Your task to perform on an android device: Search for seafood restaurants on Google Maps Image 0: 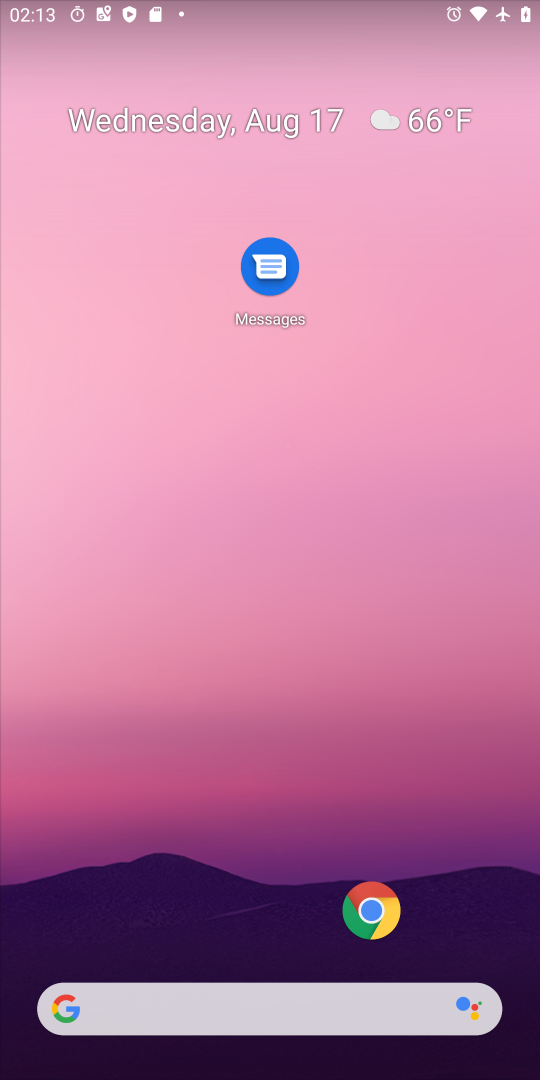
Step 0: drag from (229, 981) to (234, 247)
Your task to perform on an android device: Search for seafood restaurants on Google Maps Image 1: 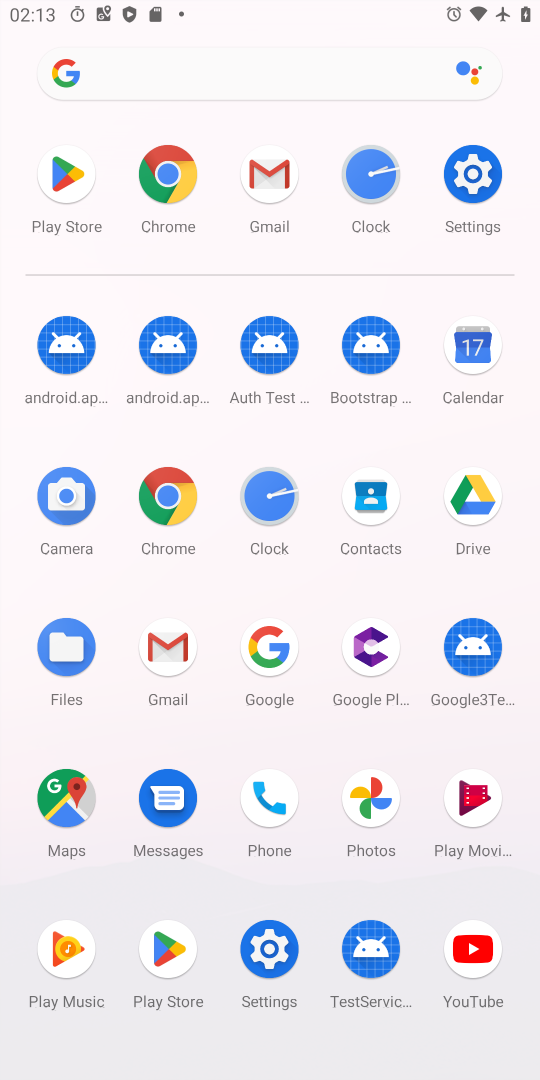
Step 1: click (53, 809)
Your task to perform on an android device: Search for seafood restaurants on Google Maps Image 2: 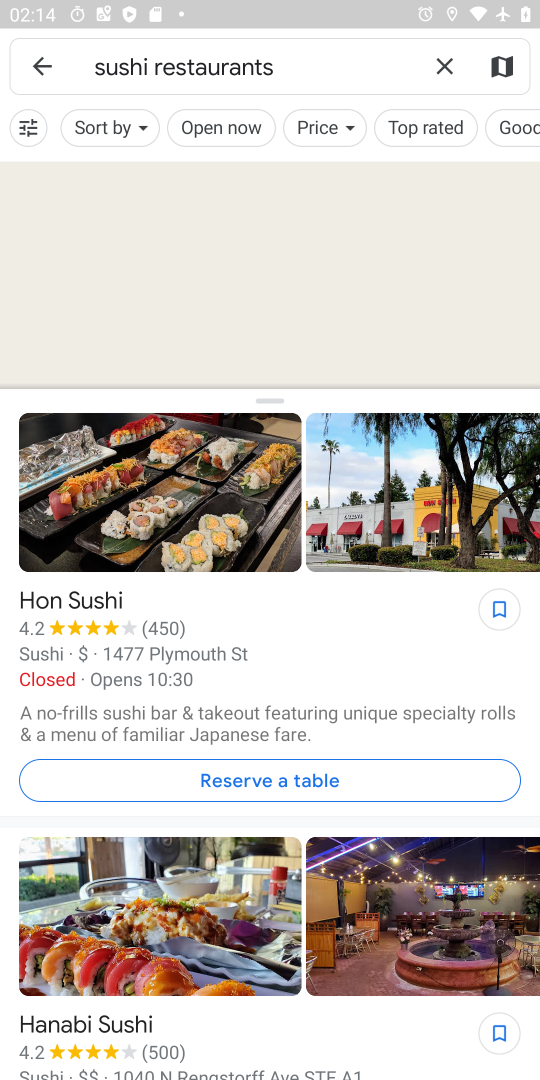
Step 2: click (442, 63)
Your task to perform on an android device: Search for seafood restaurants on Google Maps Image 3: 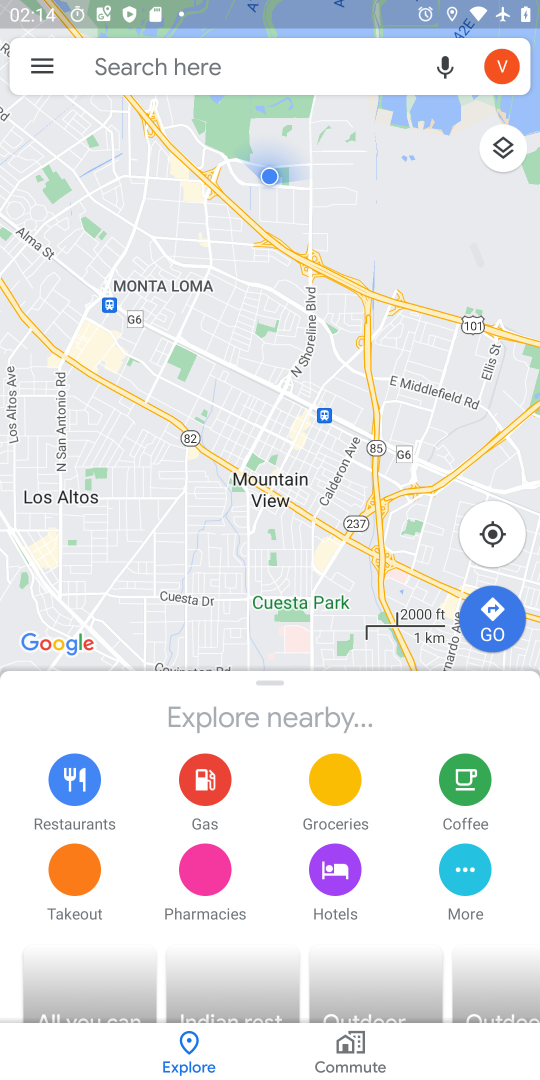
Step 3: click (347, 63)
Your task to perform on an android device: Search for seafood restaurants on Google Maps Image 4: 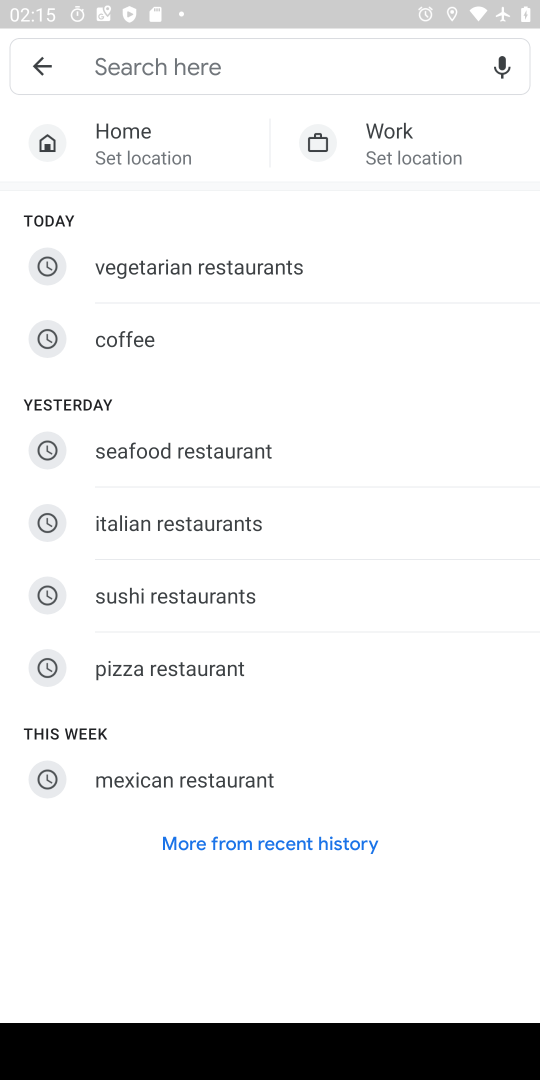
Step 4: type "seafood restaurants"
Your task to perform on an android device: Search for seafood restaurants on Google Maps Image 5: 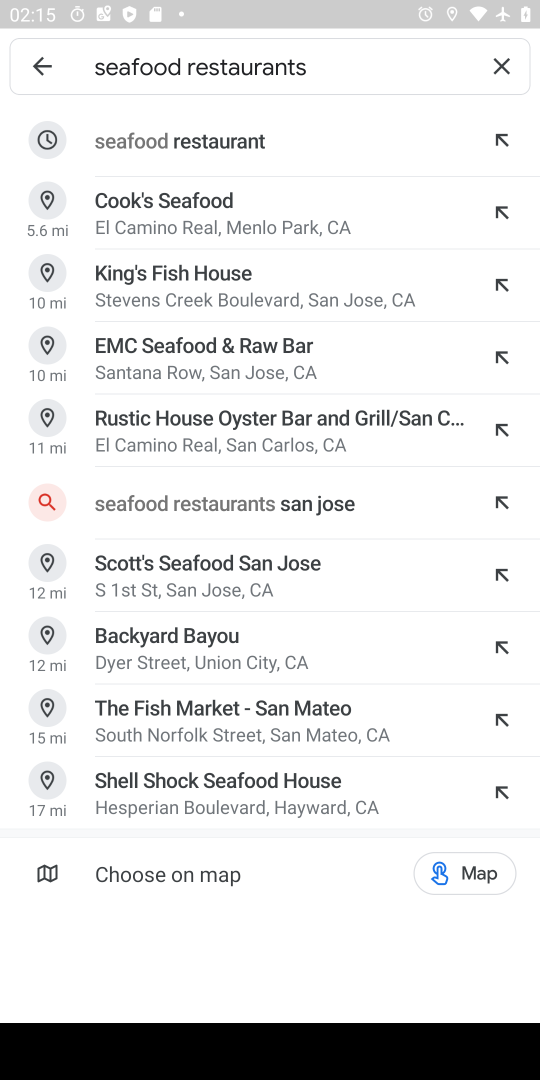
Step 5: press enter
Your task to perform on an android device: Search for seafood restaurants on Google Maps Image 6: 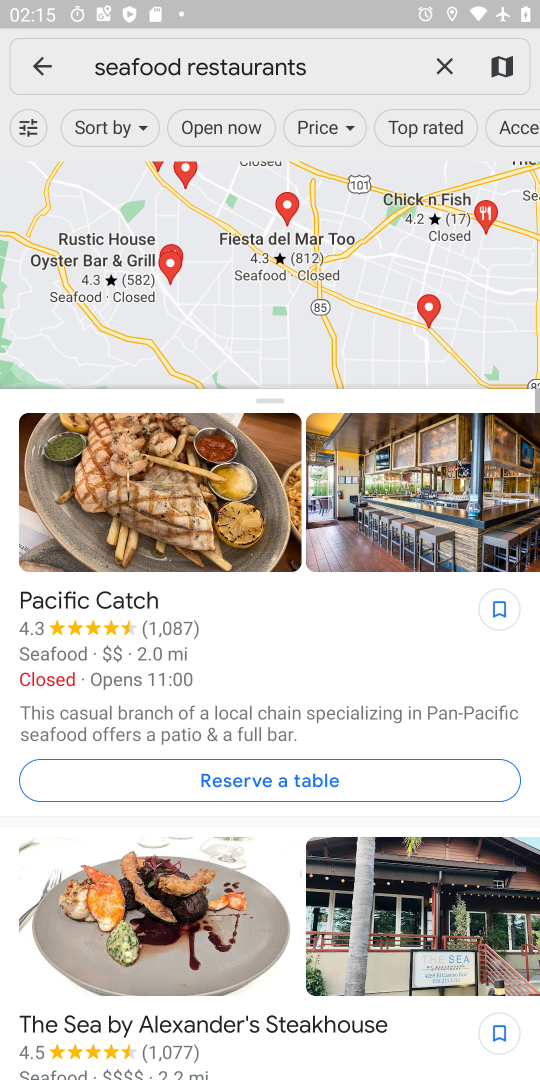
Step 6: task complete